Your task to perform on an android device: Open Wikipedia Image 0: 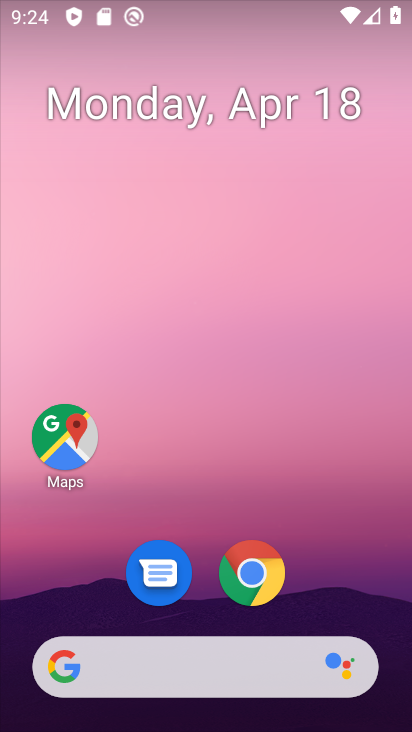
Step 0: click (294, 63)
Your task to perform on an android device: Open Wikipedia Image 1: 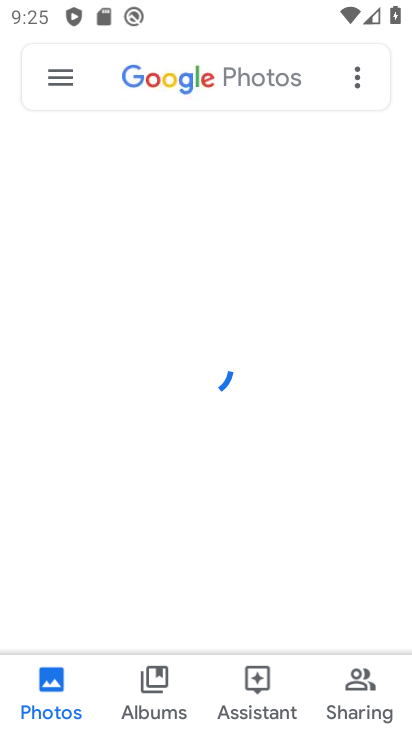
Step 1: press home button
Your task to perform on an android device: Open Wikipedia Image 2: 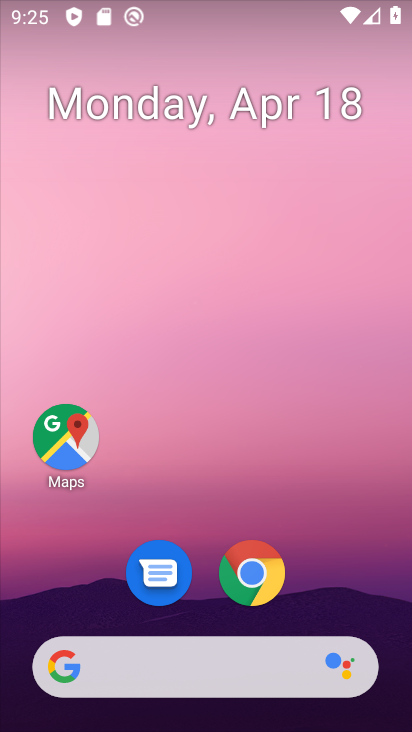
Step 2: drag from (353, 587) to (286, 82)
Your task to perform on an android device: Open Wikipedia Image 3: 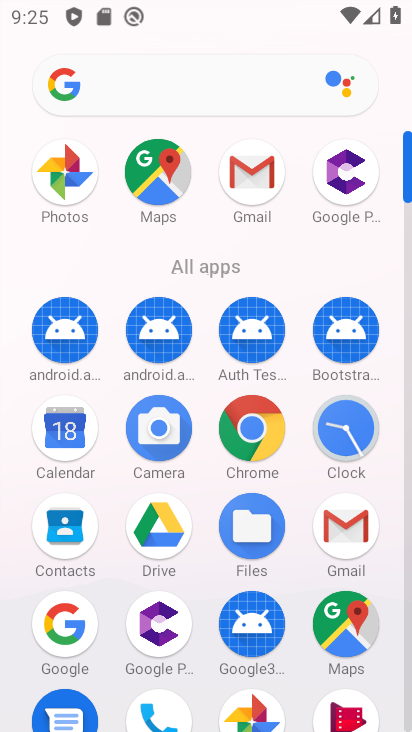
Step 3: click (253, 440)
Your task to perform on an android device: Open Wikipedia Image 4: 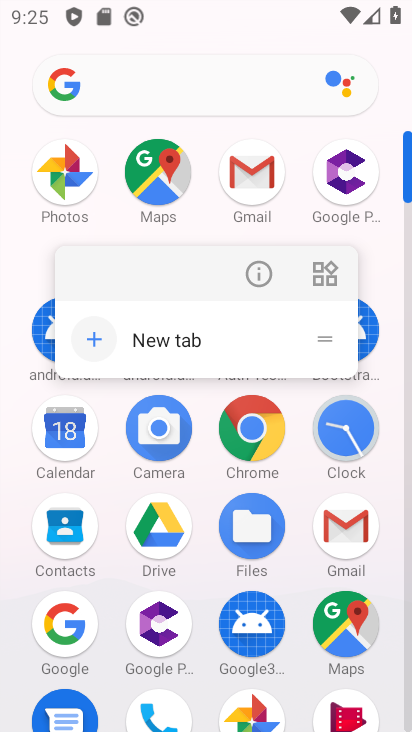
Step 4: click (253, 440)
Your task to perform on an android device: Open Wikipedia Image 5: 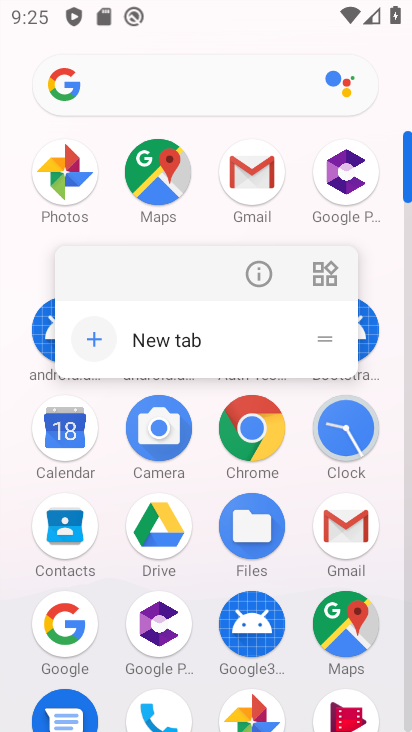
Step 5: click (253, 440)
Your task to perform on an android device: Open Wikipedia Image 6: 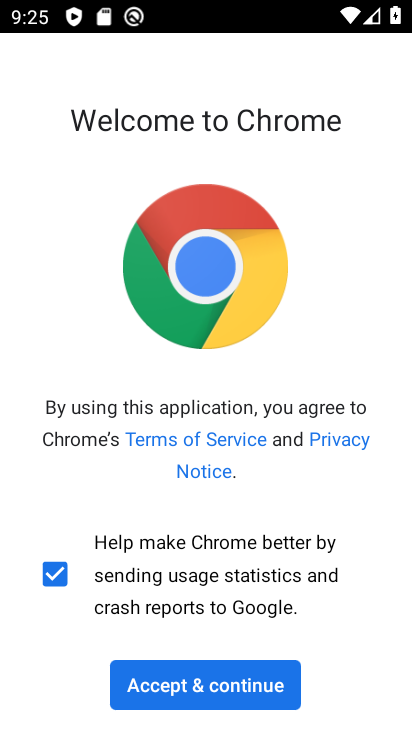
Step 6: click (206, 681)
Your task to perform on an android device: Open Wikipedia Image 7: 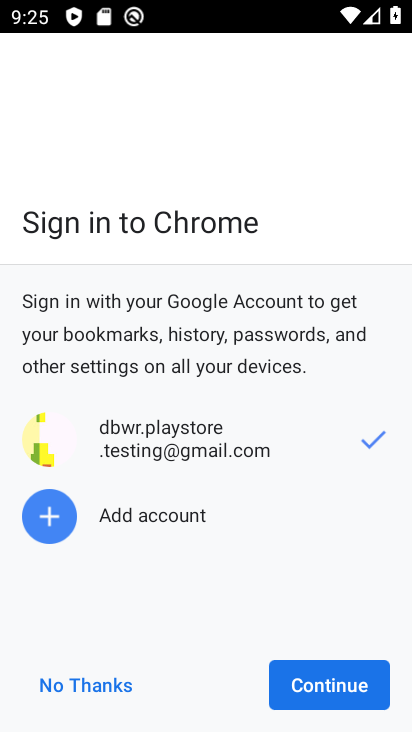
Step 7: click (296, 675)
Your task to perform on an android device: Open Wikipedia Image 8: 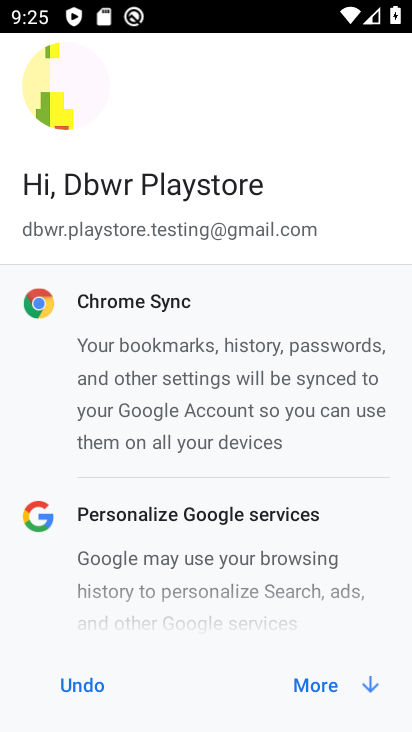
Step 8: click (297, 674)
Your task to perform on an android device: Open Wikipedia Image 9: 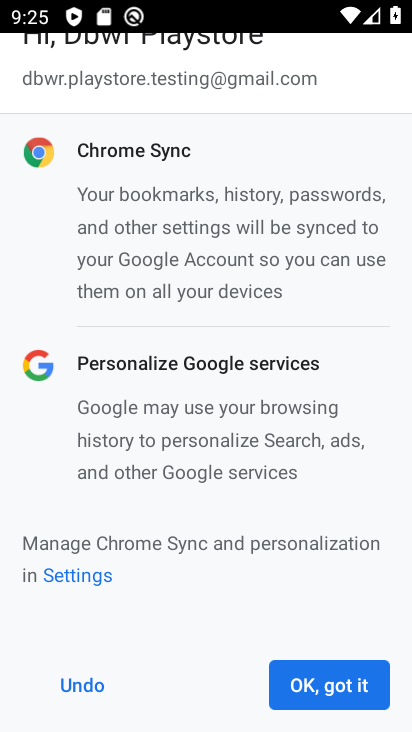
Step 9: click (297, 674)
Your task to perform on an android device: Open Wikipedia Image 10: 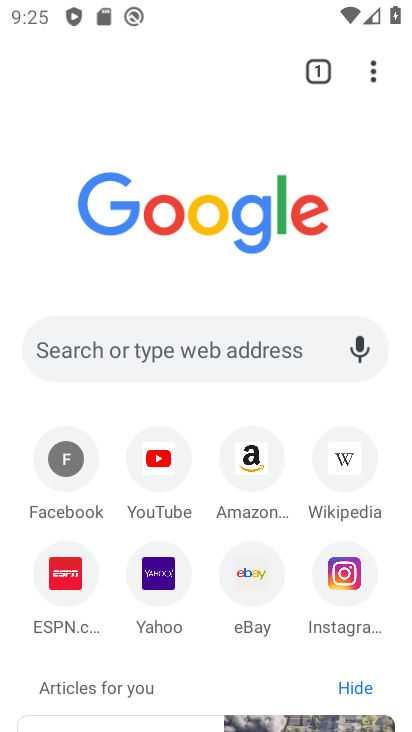
Step 10: click (160, 346)
Your task to perform on an android device: Open Wikipedia Image 11: 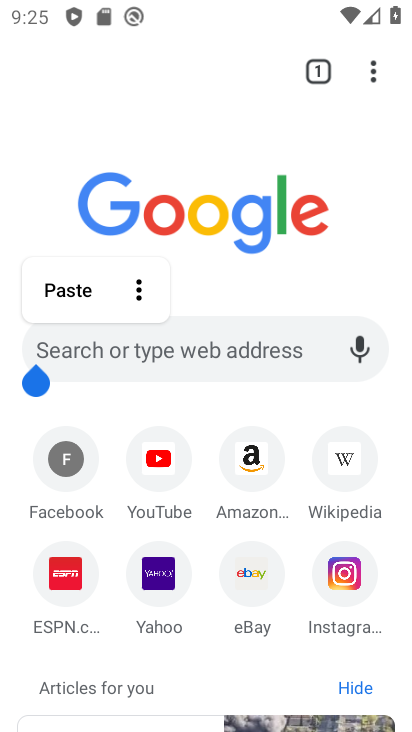
Step 11: click (268, 345)
Your task to perform on an android device: Open Wikipedia Image 12: 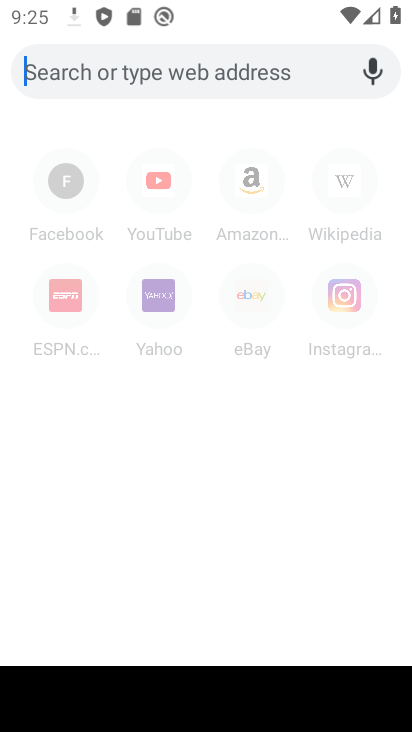
Step 12: type "wikipedia"
Your task to perform on an android device: Open Wikipedia Image 13: 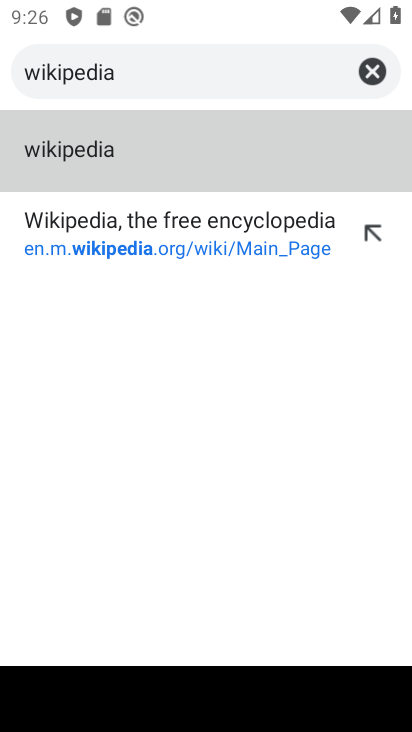
Step 13: click (341, 144)
Your task to perform on an android device: Open Wikipedia Image 14: 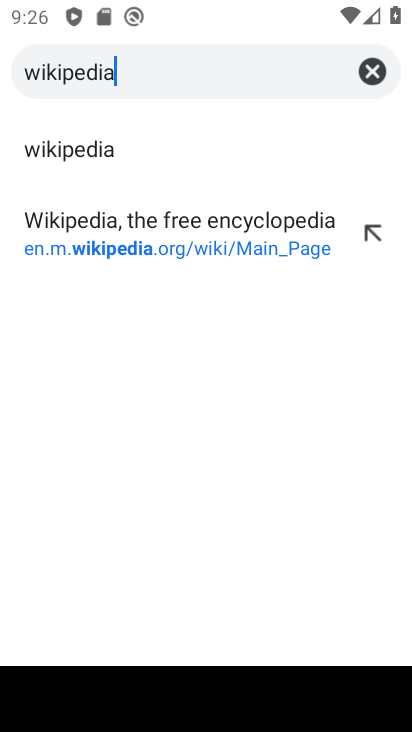
Step 14: click (273, 144)
Your task to perform on an android device: Open Wikipedia Image 15: 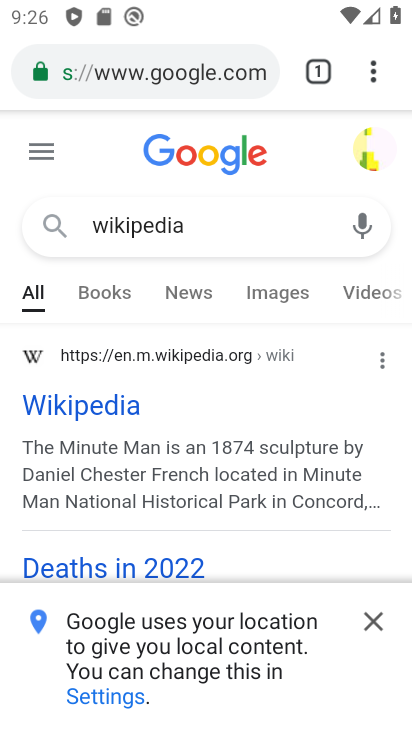
Step 15: task complete